Your task to perform on an android device: change the upload size in google photos Image 0: 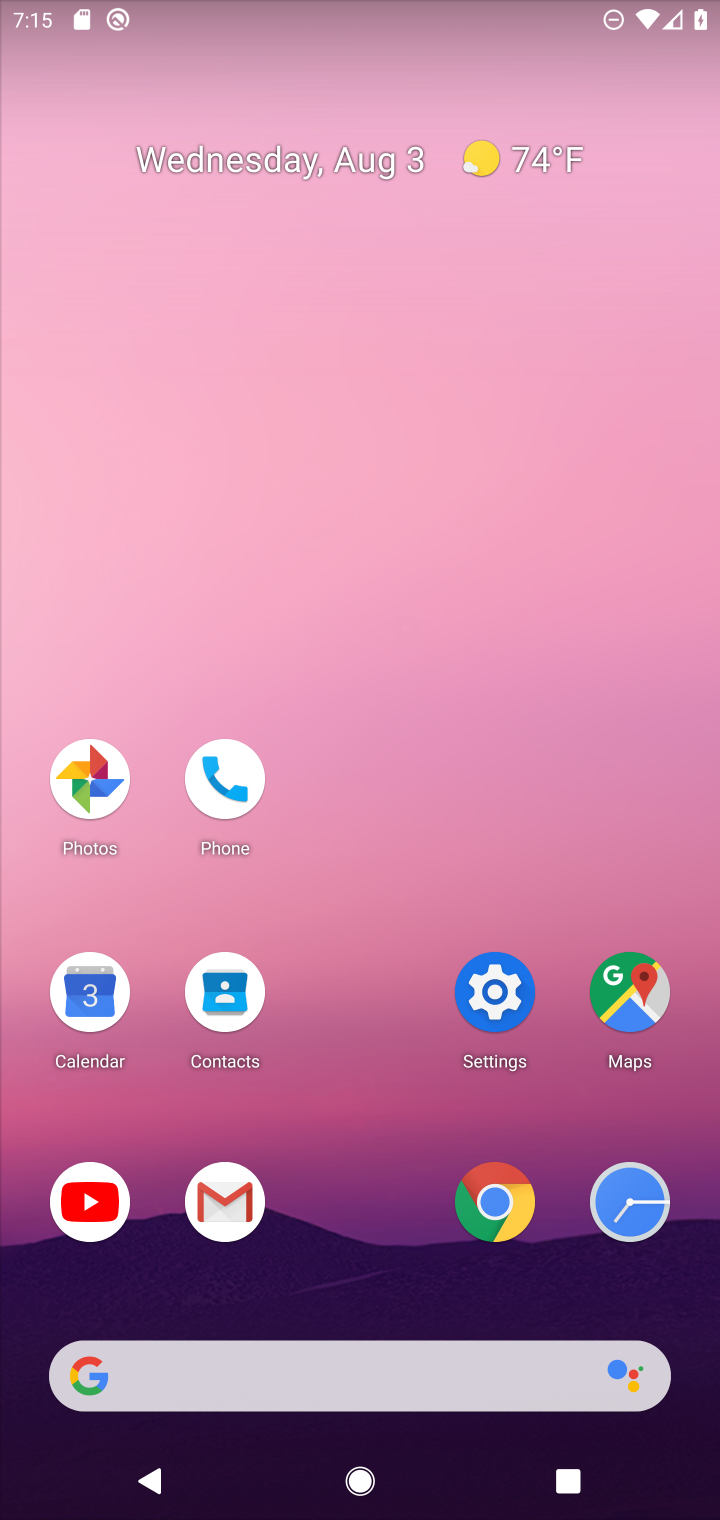
Step 0: click (79, 769)
Your task to perform on an android device: change the upload size in google photos Image 1: 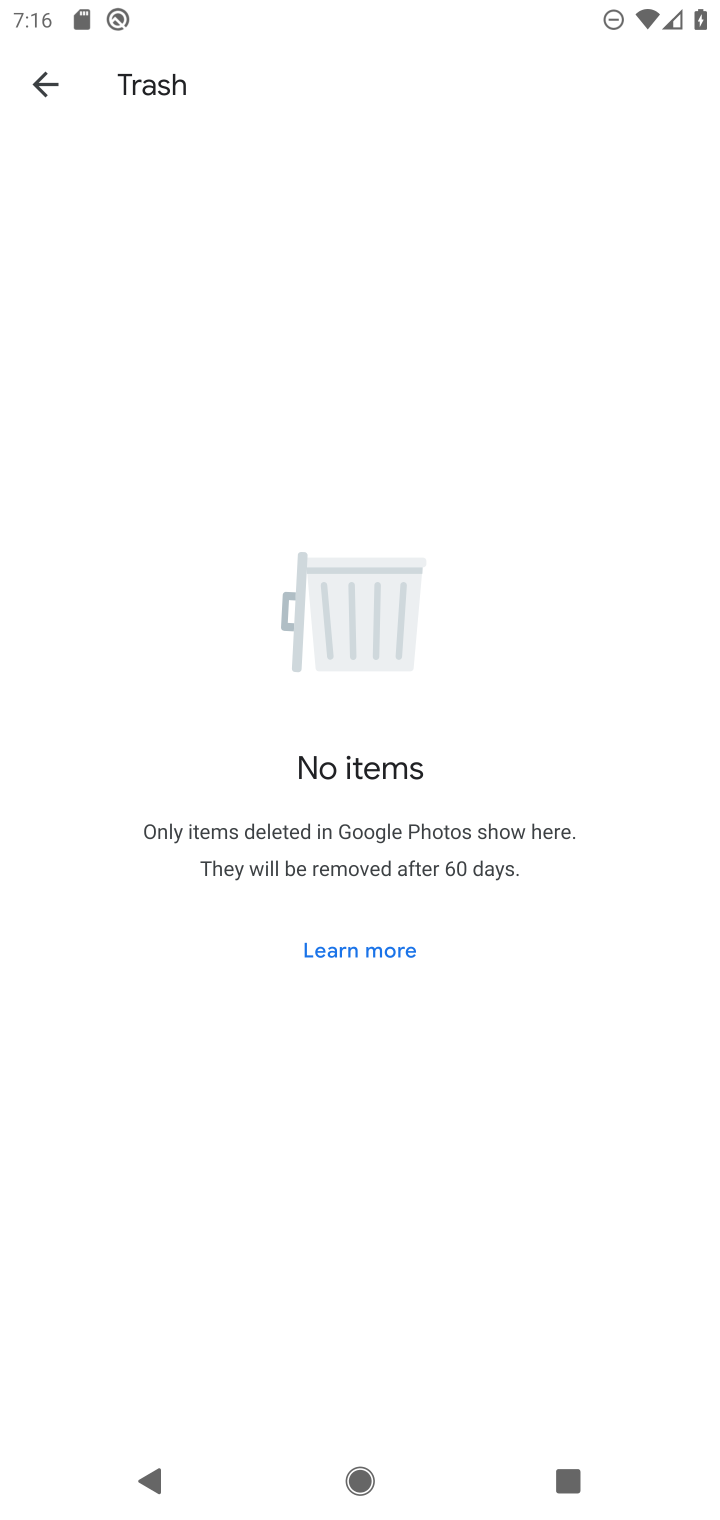
Step 1: click (38, 77)
Your task to perform on an android device: change the upload size in google photos Image 2: 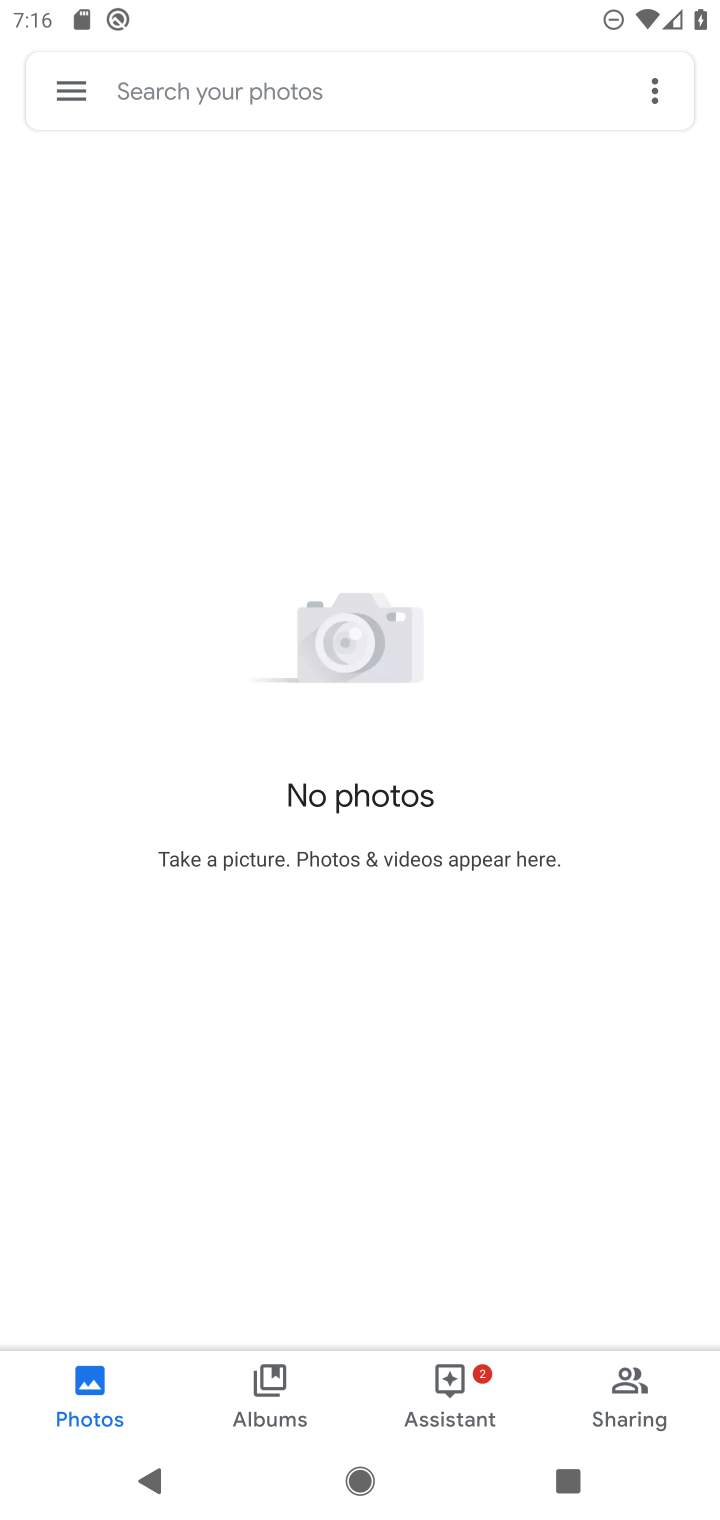
Step 2: click (59, 83)
Your task to perform on an android device: change the upload size in google photos Image 3: 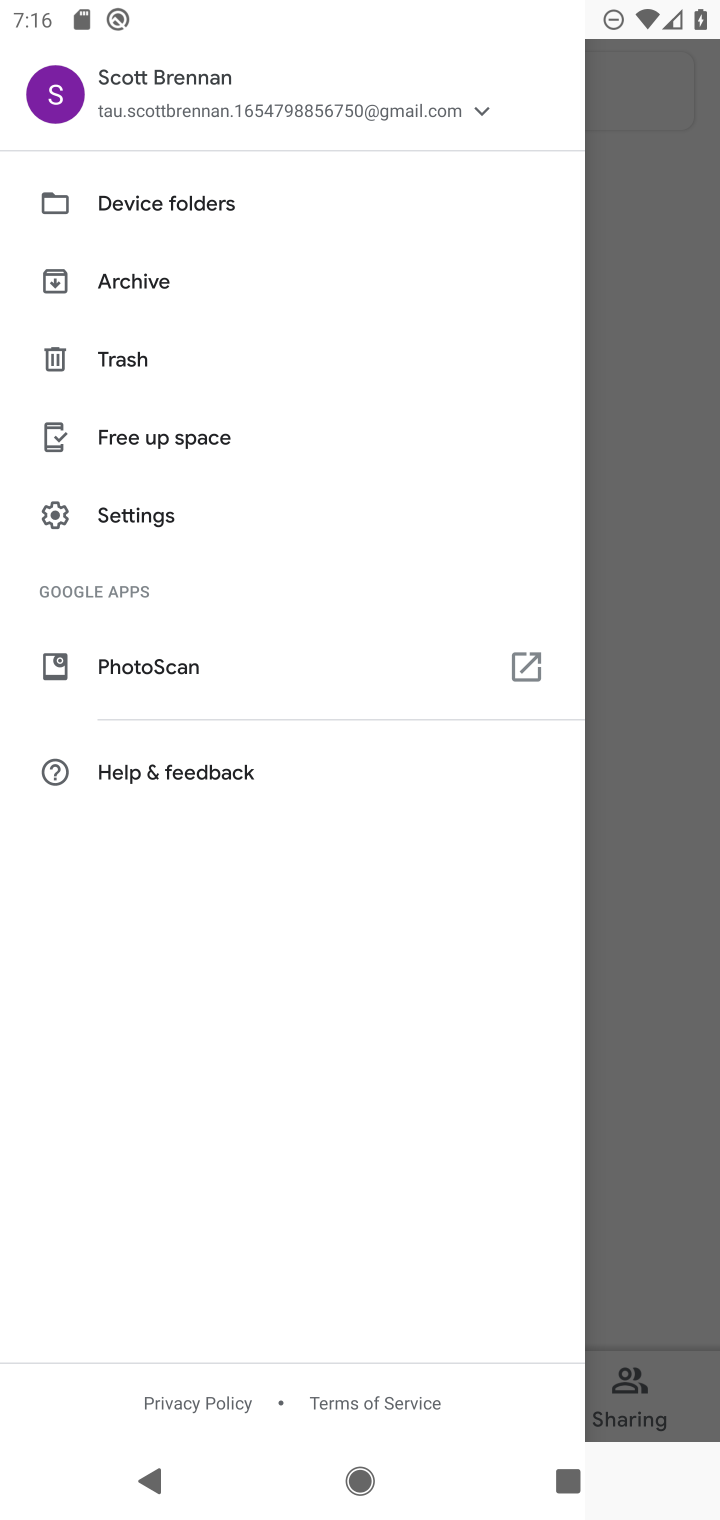
Step 3: click (127, 509)
Your task to perform on an android device: change the upload size in google photos Image 4: 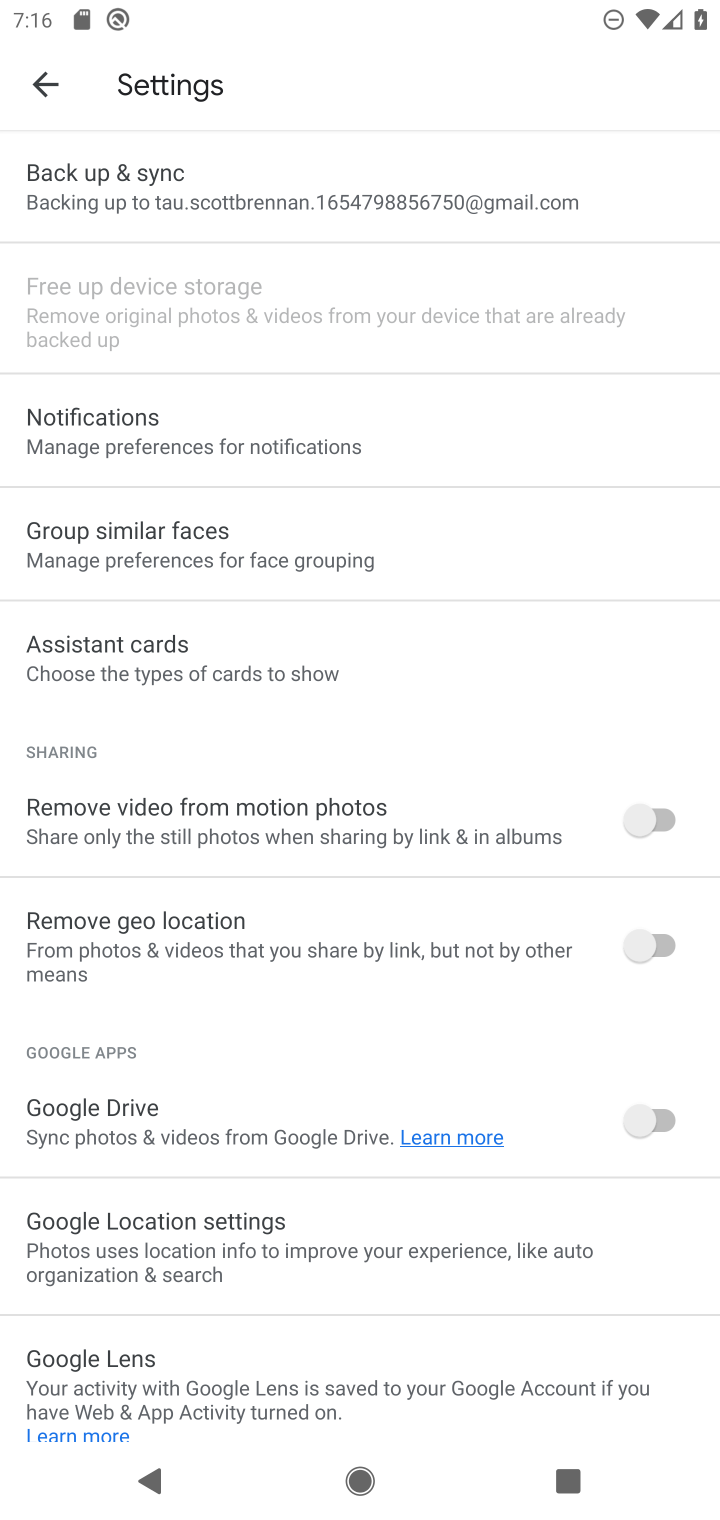
Step 4: click (134, 172)
Your task to perform on an android device: change the upload size in google photos Image 5: 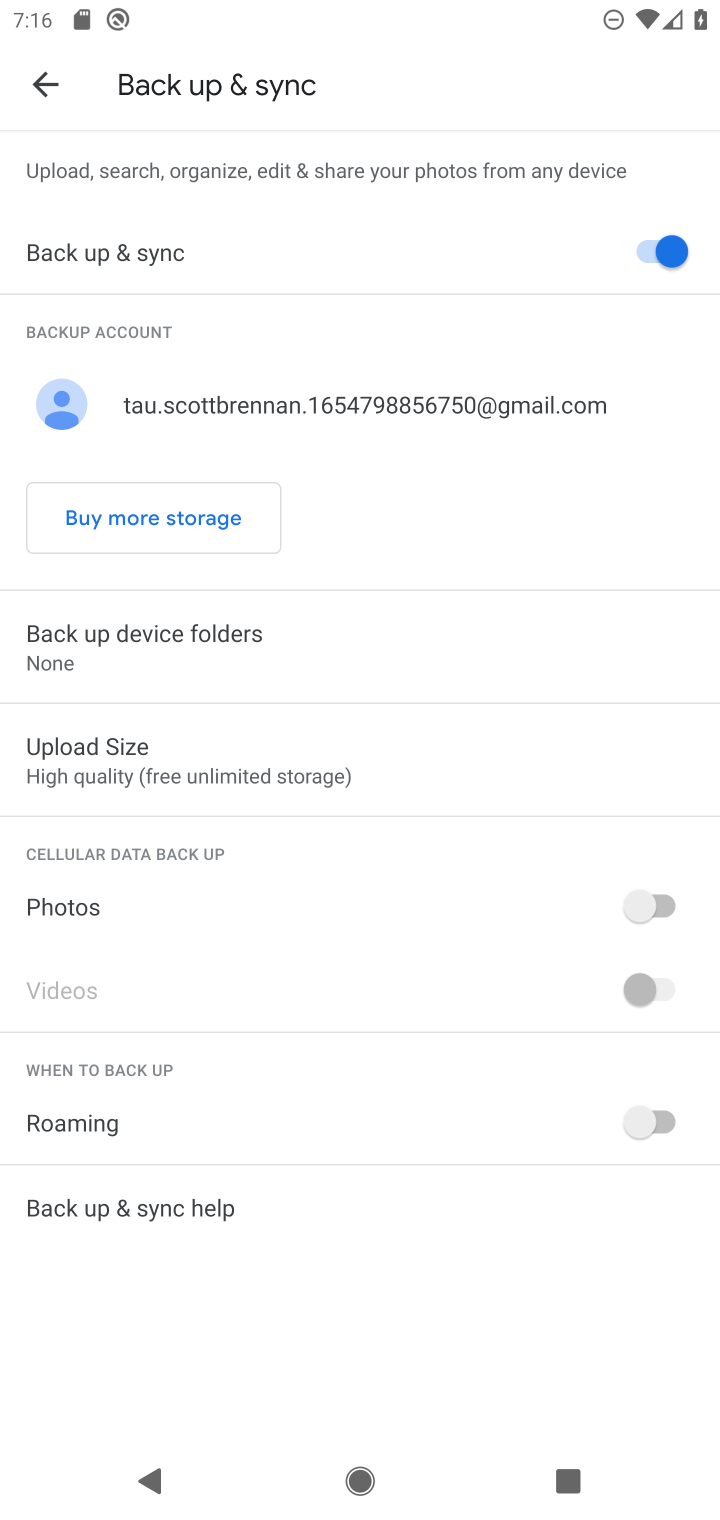
Step 5: click (129, 754)
Your task to perform on an android device: change the upload size in google photos Image 6: 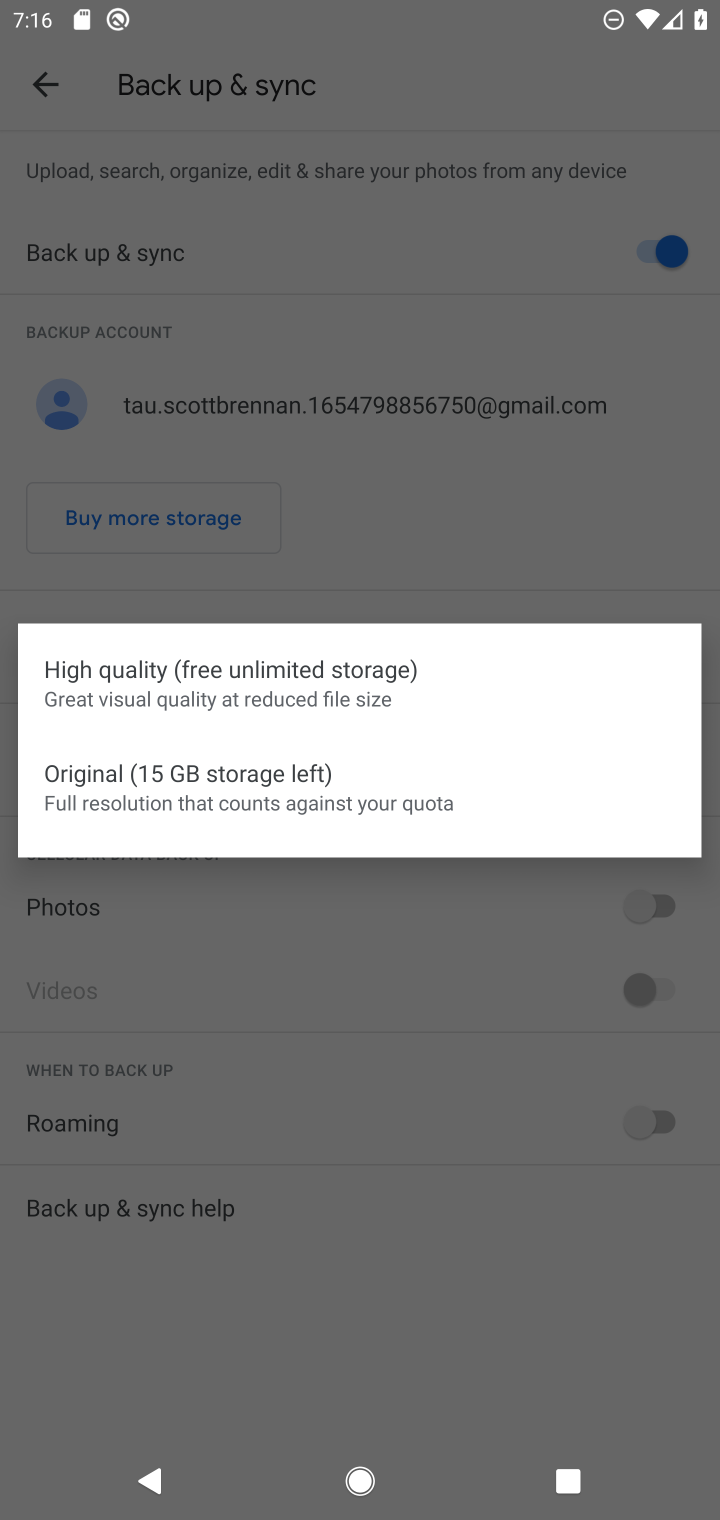
Step 6: task complete